Your task to perform on an android device: Set the phone to "Do not disturb". Image 0: 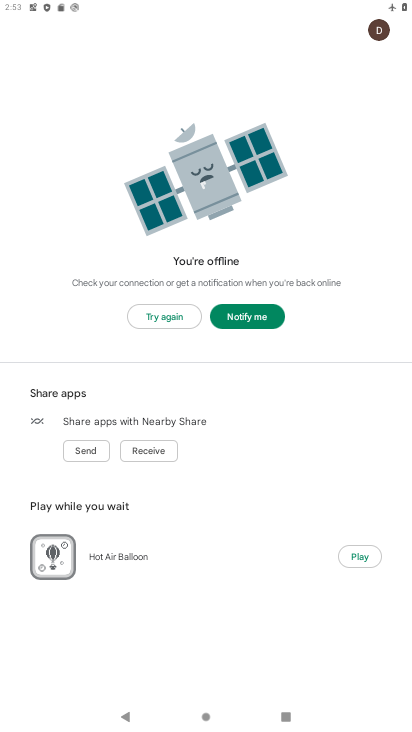
Step 0: press home button
Your task to perform on an android device: Set the phone to "Do not disturb". Image 1: 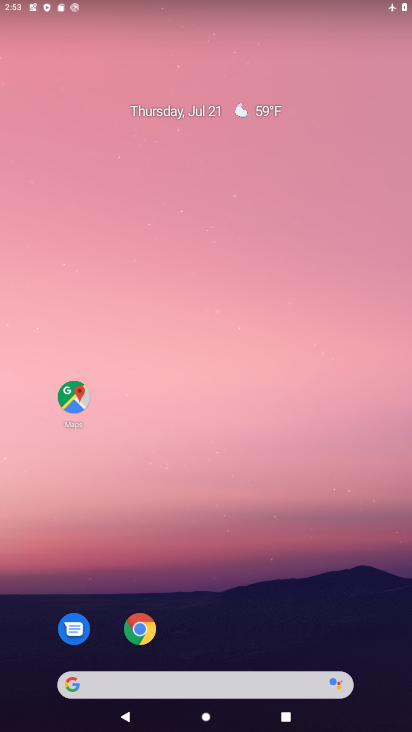
Step 1: drag from (217, 649) to (206, 185)
Your task to perform on an android device: Set the phone to "Do not disturb". Image 2: 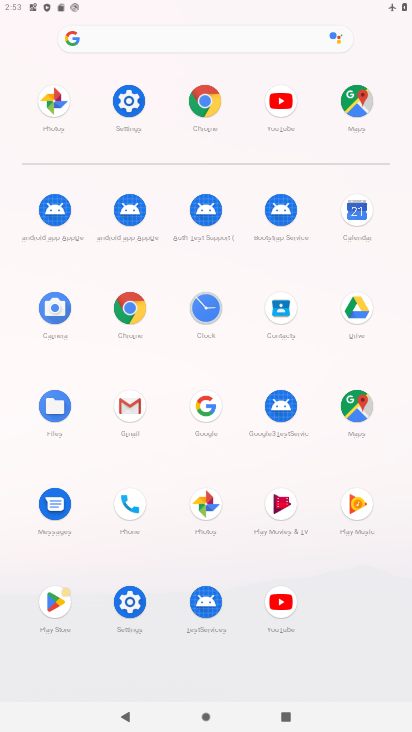
Step 2: click (132, 601)
Your task to perform on an android device: Set the phone to "Do not disturb". Image 3: 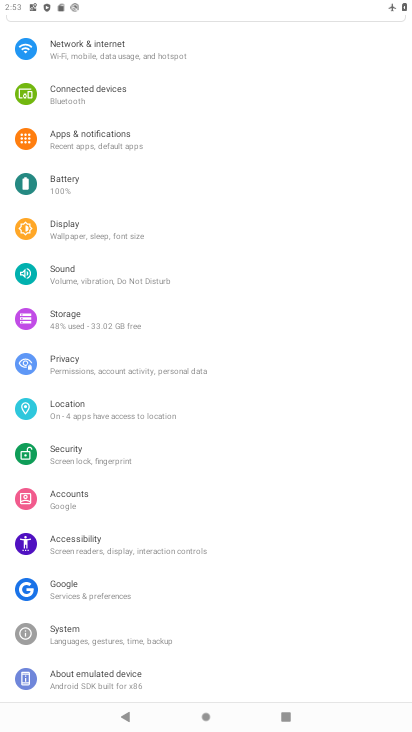
Step 3: click (78, 275)
Your task to perform on an android device: Set the phone to "Do not disturb". Image 4: 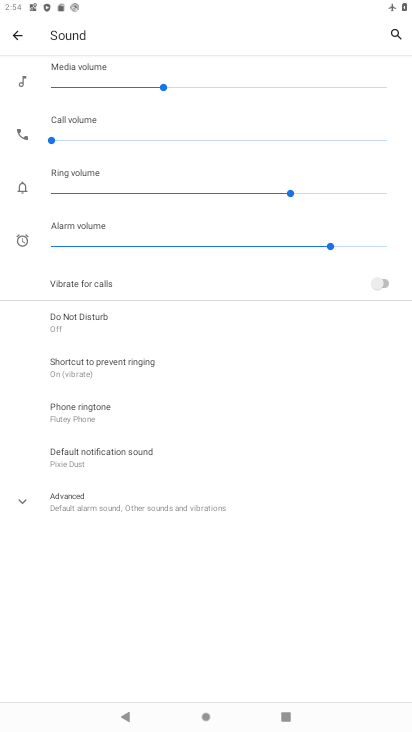
Step 4: click (66, 321)
Your task to perform on an android device: Set the phone to "Do not disturb". Image 5: 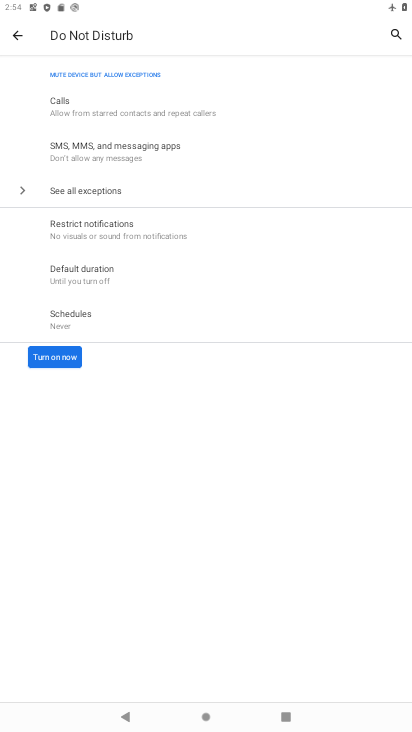
Step 5: click (52, 356)
Your task to perform on an android device: Set the phone to "Do not disturb". Image 6: 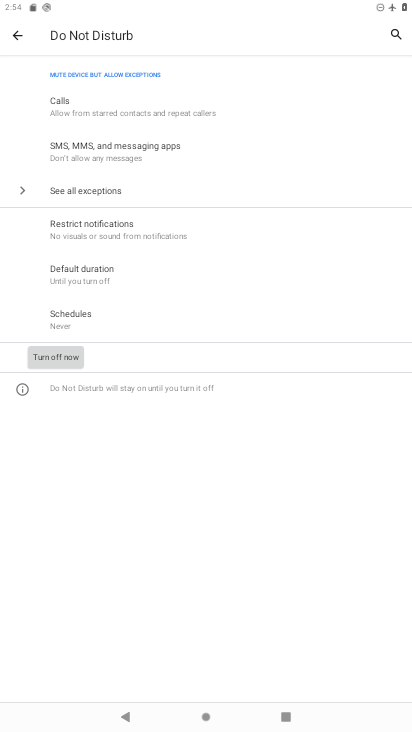
Step 6: task complete